Your task to perform on an android device: Show the shopping cart on newegg.com. Add "usb-c to usb-b" to the cart on newegg.com Image 0: 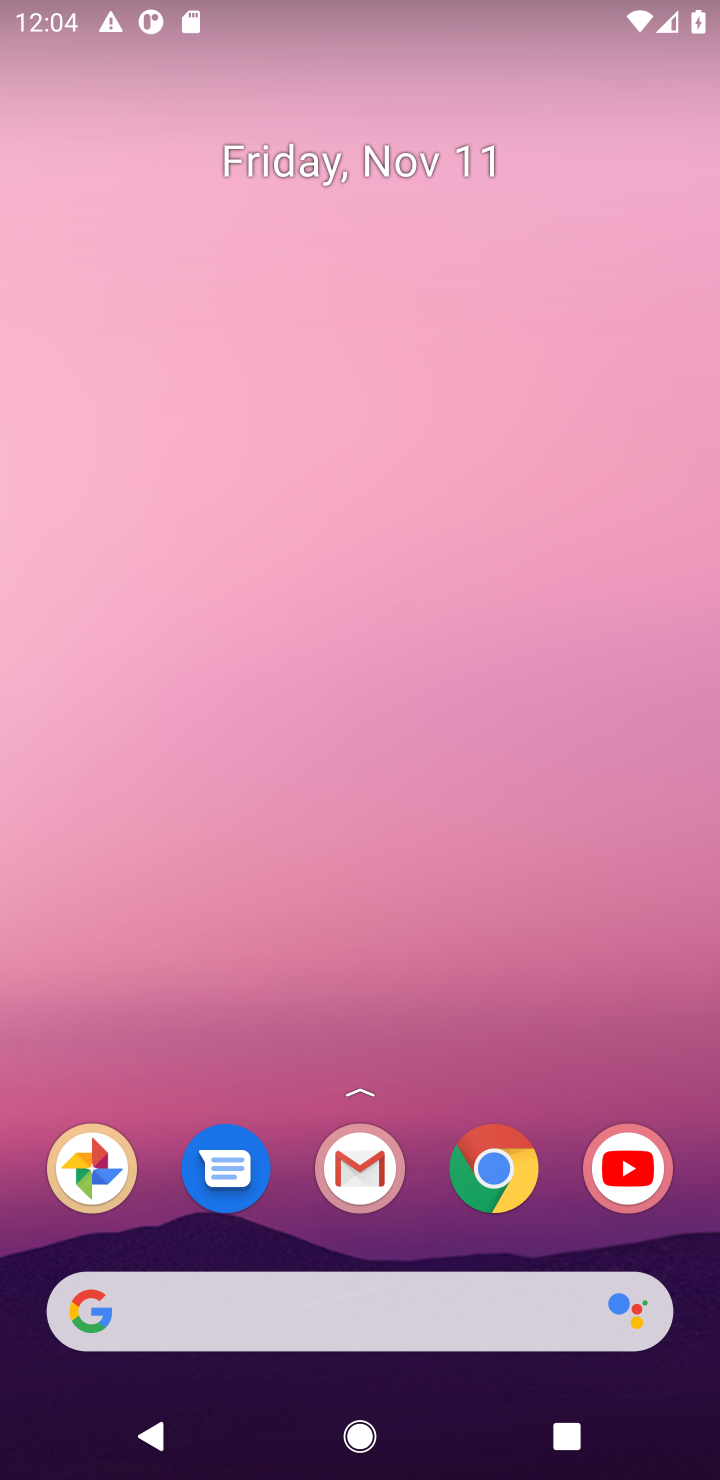
Step 0: click (490, 1181)
Your task to perform on an android device: Show the shopping cart on newegg.com. Add "usb-c to usb-b" to the cart on newegg.com Image 1: 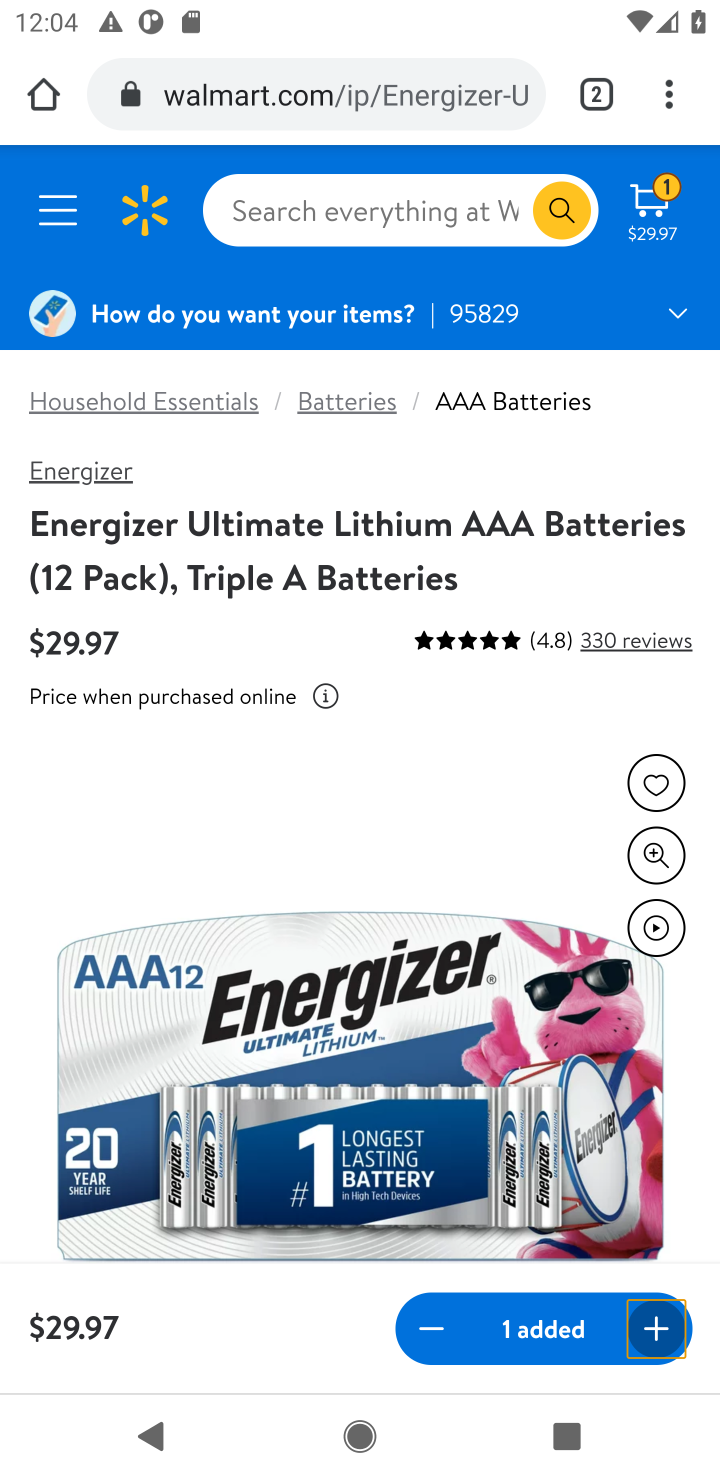
Step 1: click (285, 107)
Your task to perform on an android device: Show the shopping cart on newegg.com. Add "usb-c to usb-b" to the cart on newegg.com Image 2: 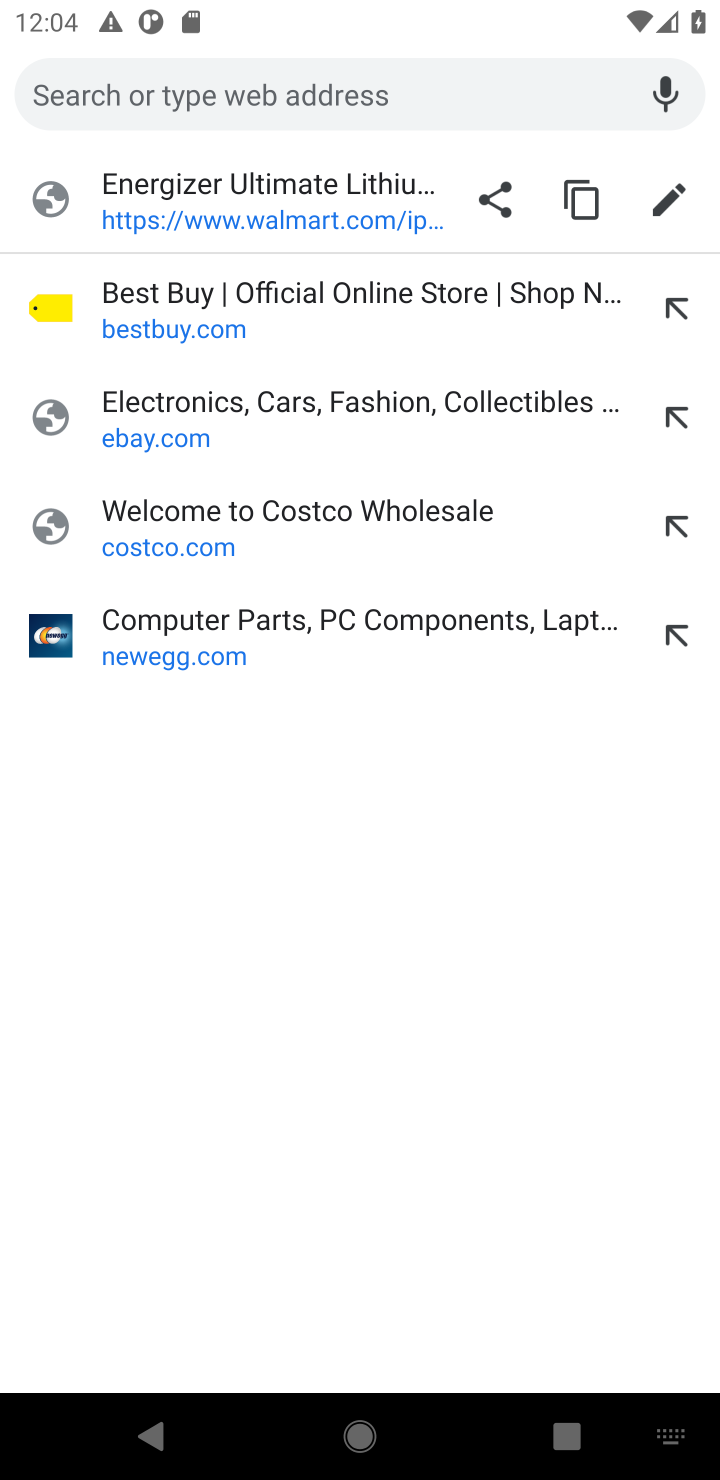
Step 2: click (136, 637)
Your task to perform on an android device: Show the shopping cart on newegg.com. Add "usb-c to usb-b" to the cart on newegg.com Image 3: 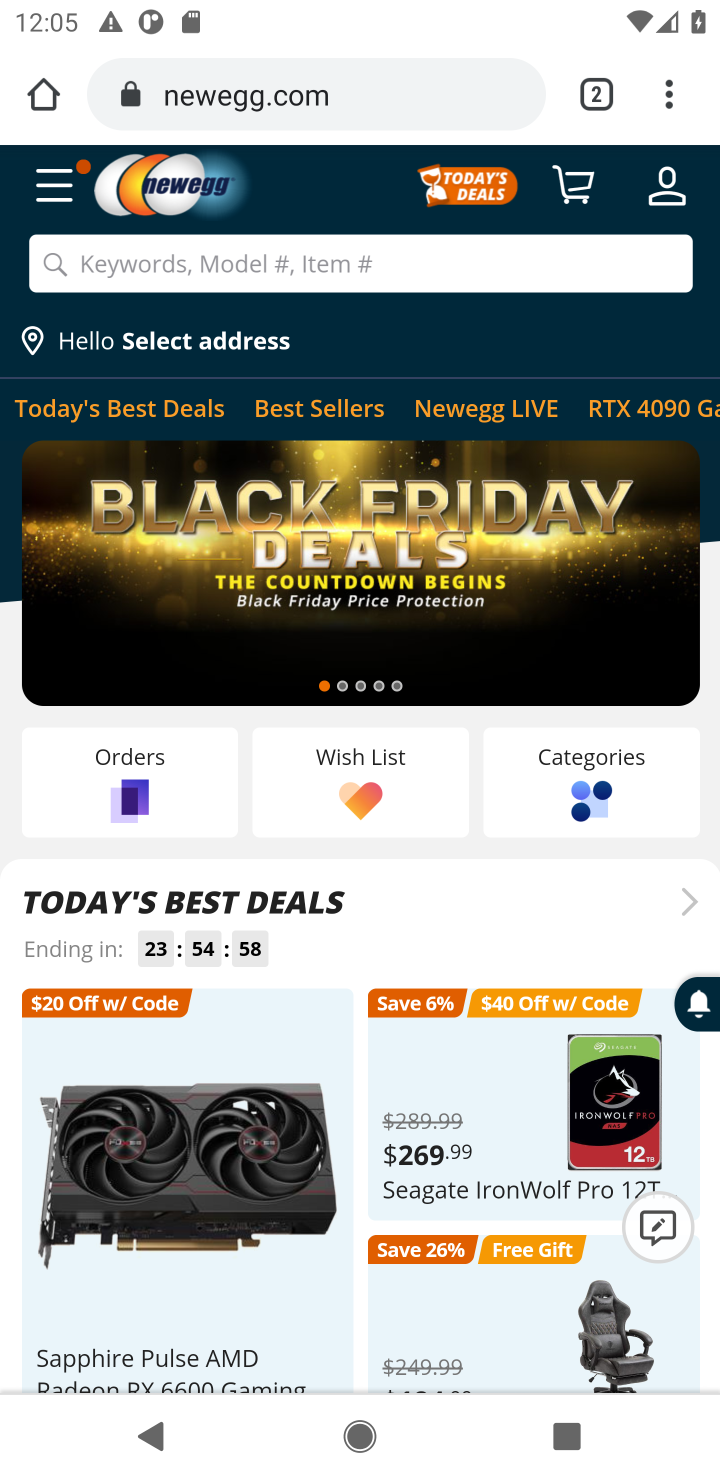
Step 3: click (579, 190)
Your task to perform on an android device: Show the shopping cart on newegg.com. Add "usb-c to usb-b" to the cart on newegg.com Image 4: 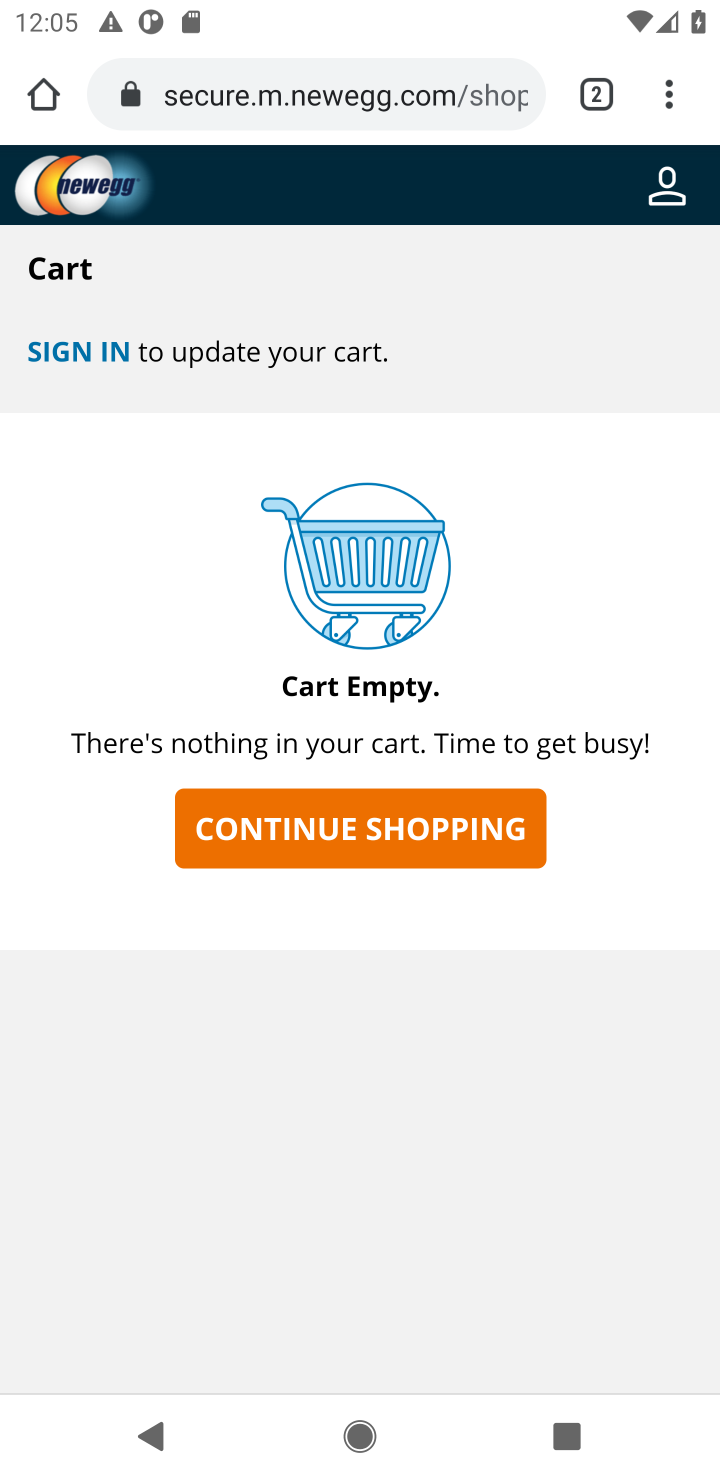
Step 4: click (323, 844)
Your task to perform on an android device: Show the shopping cart on newegg.com. Add "usb-c to usb-b" to the cart on newegg.com Image 5: 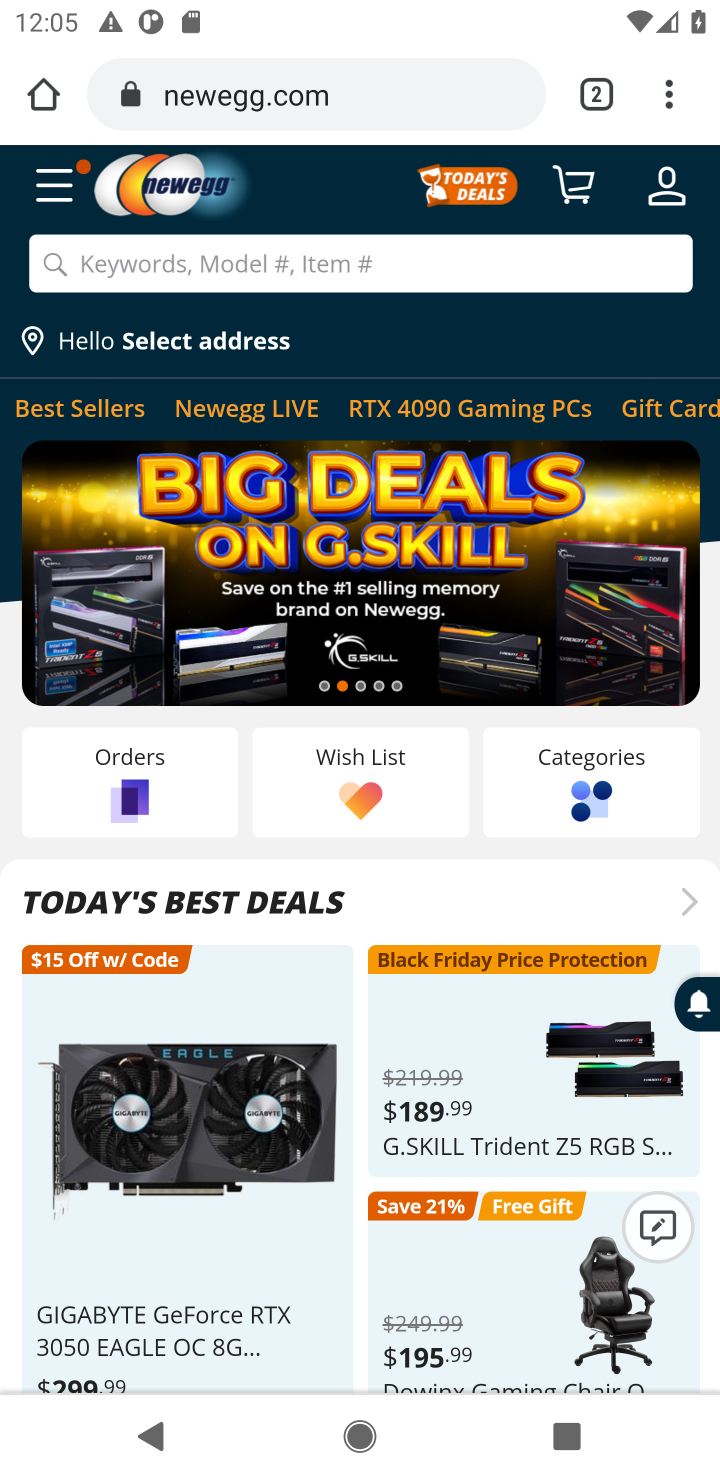
Step 5: click (282, 263)
Your task to perform on an android device: Show the shopping cart on newegg.com. Add "usb-c to usb-b" to the cart on newegg.com Image 6: 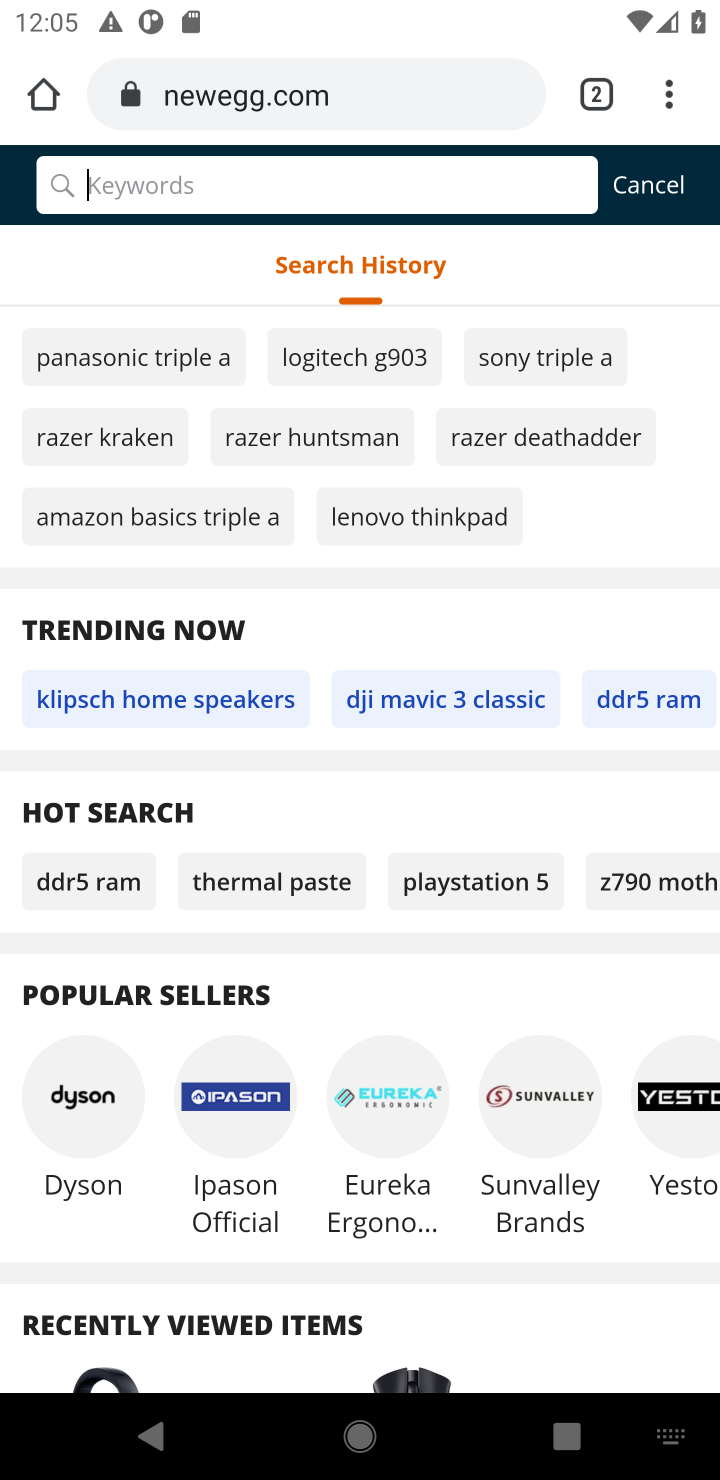
Step 6: type "usb-c to usb-b"
Your task to perform on an android device: Show the shopping cart on newegg.com. Add "usb-c to usb-b" to the cart on newegg.com Image 7: 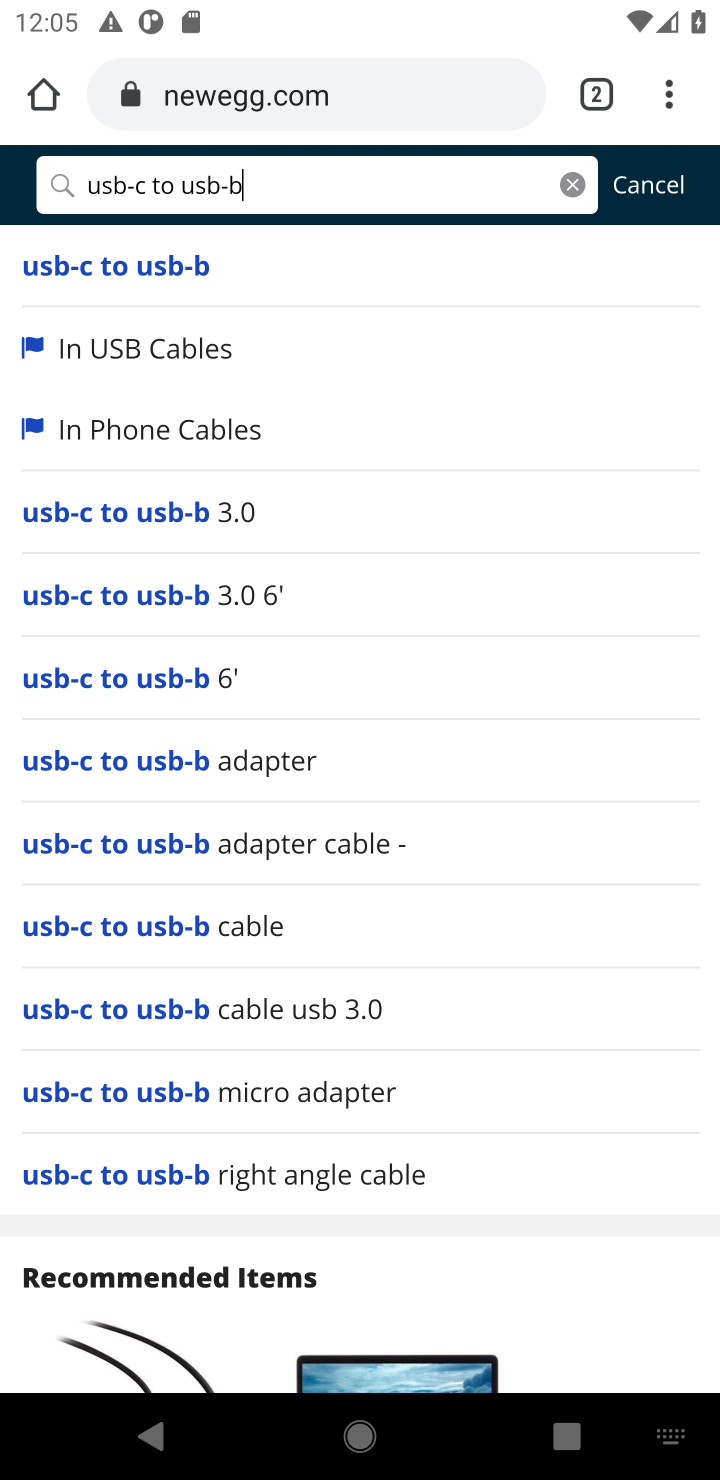
Step 7: click (121, 275)
Your task to perform on an android device: Show the shopping cart on newegg.com. Add "usb-c to usb-b" to the cart on newegg.com Image 8: 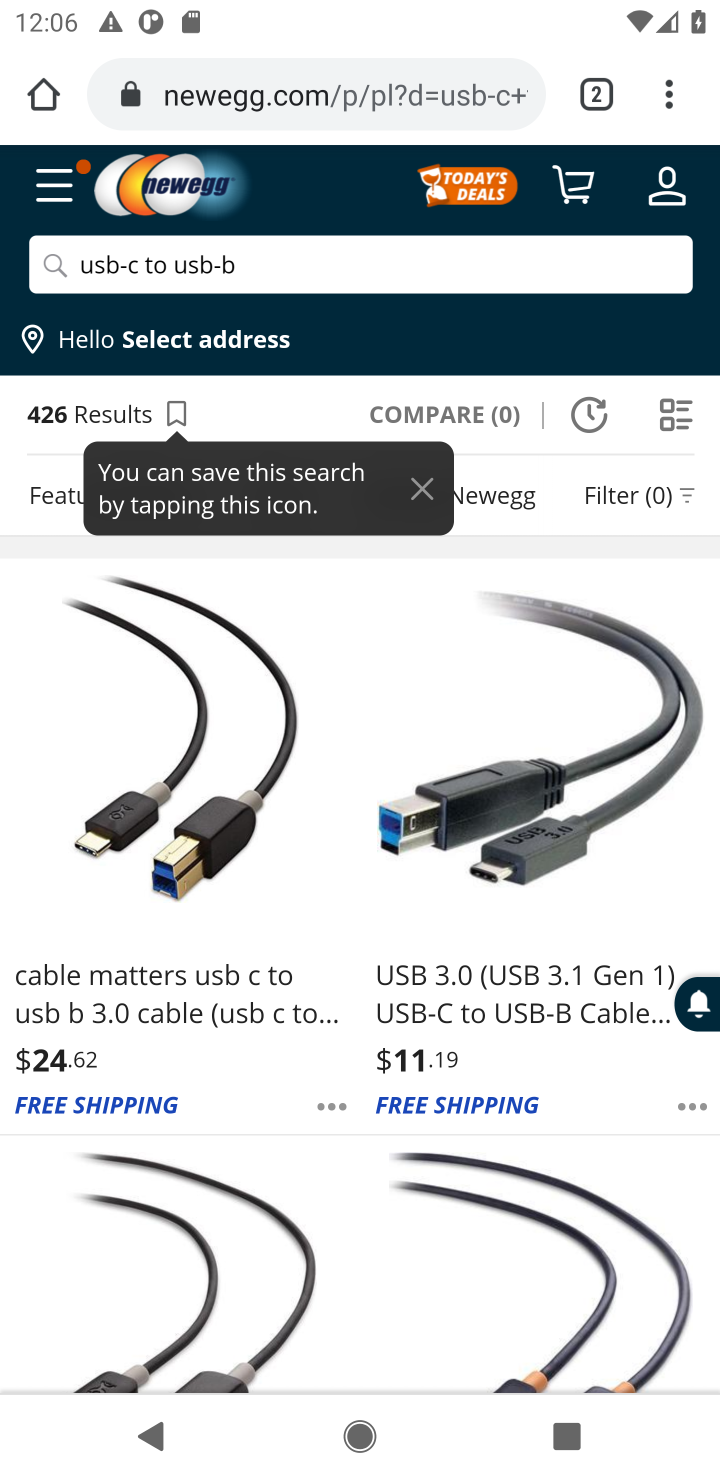
Step 8: click (144, 767)
Your task to perform on an android device: Show the shopping cart on newegg.com. Add "usb-c to usb-b" to the cart on newegg.com Image 9: 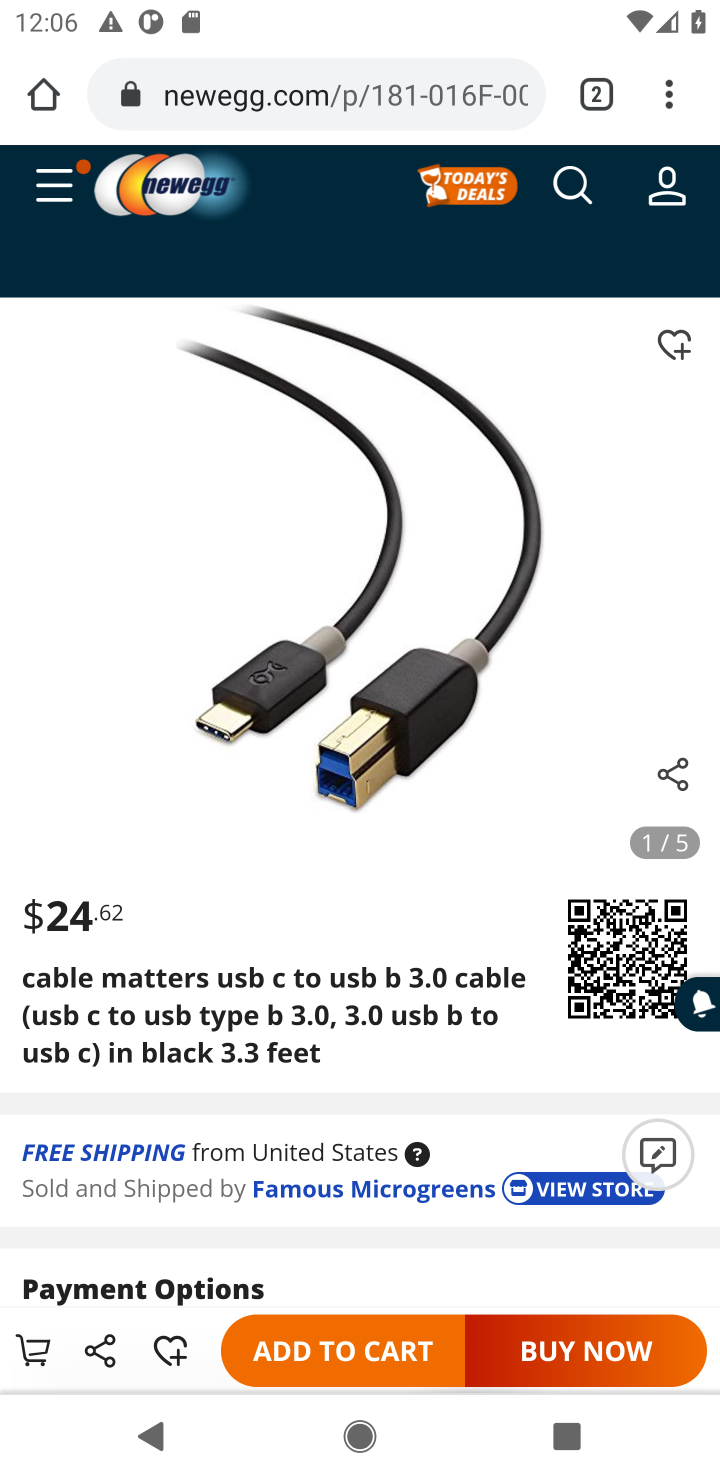
Step 9: click (305, 1353)
Your task to perform on an android device: Show the shopping cart on newegg.com. Add "usb-c to usb-b" to the cart on newegg.com Image 10: 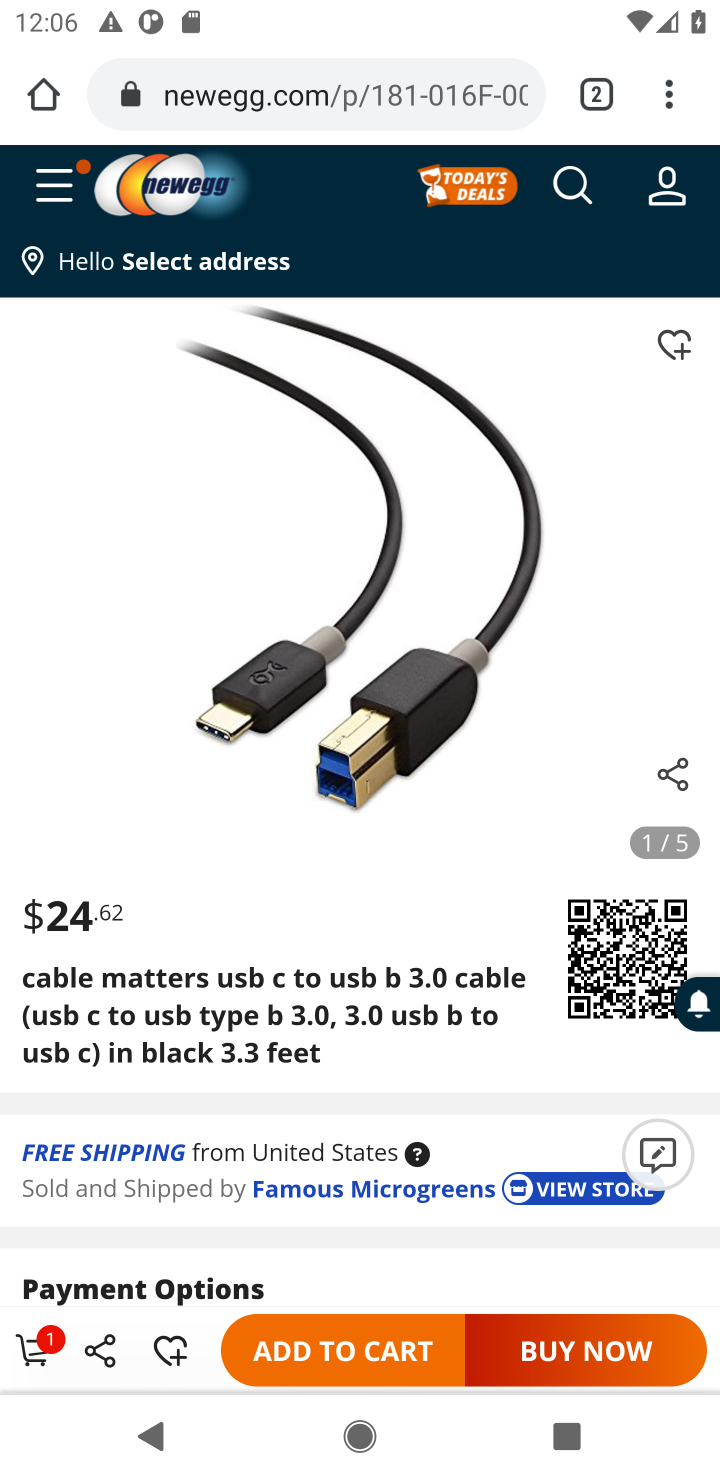
Step 10: task complete